Your task to perform on an android device: Open Chrome and go to settings Image 0: 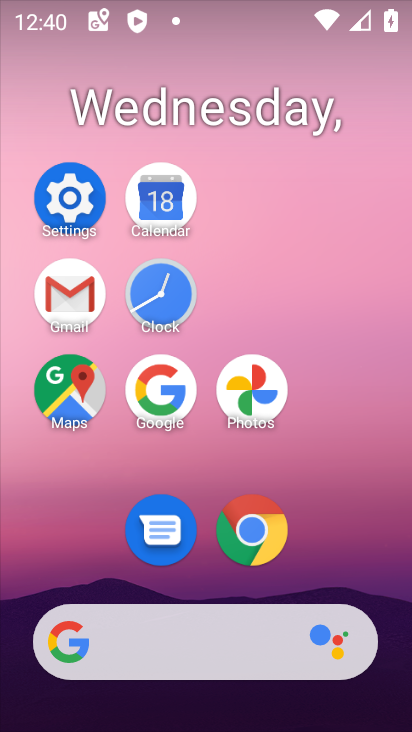
Step 0: click (243, 534)
Your task to perform on an android device: Open Chrome and go to settings Image 1: 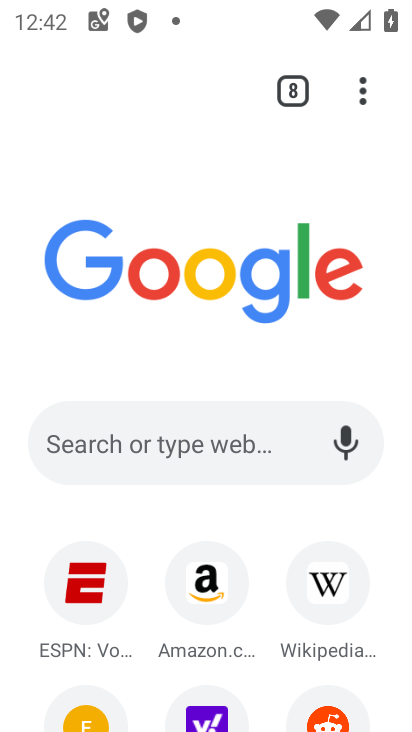
Step 1: click (367, 88)
Your task to perform on an android device: Open Chrome and go to settings Image 2: 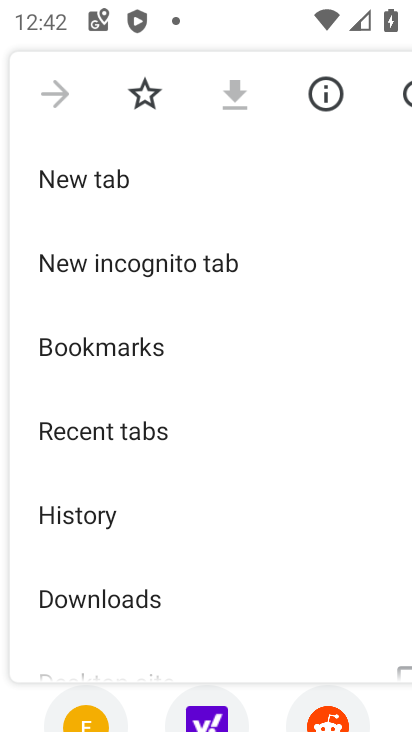
Step 2: drag from (187, 524) to (147, 149)
Your task to perform on an android device: Open Chrome and go to settings Image 3: 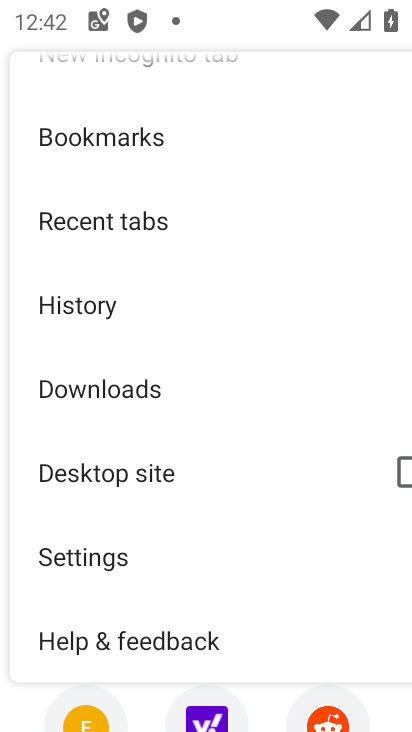
Step 3: click (136, 537)
Your task to perform on an android device: Open Chrome and go to settings Image 4: 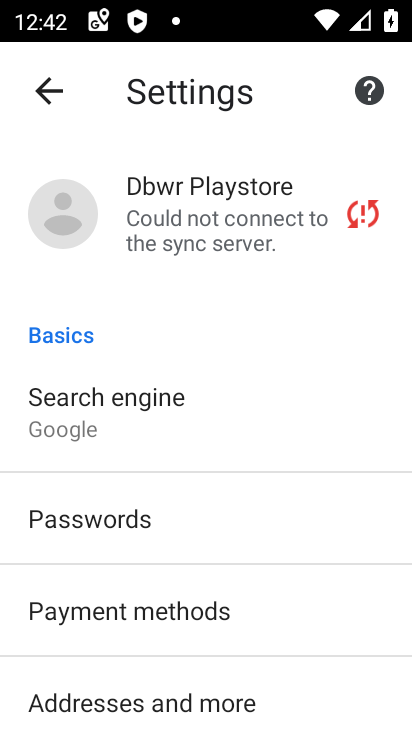
Step 4: task complete